Your task to perform on an android device: Open sound settings Image 0: 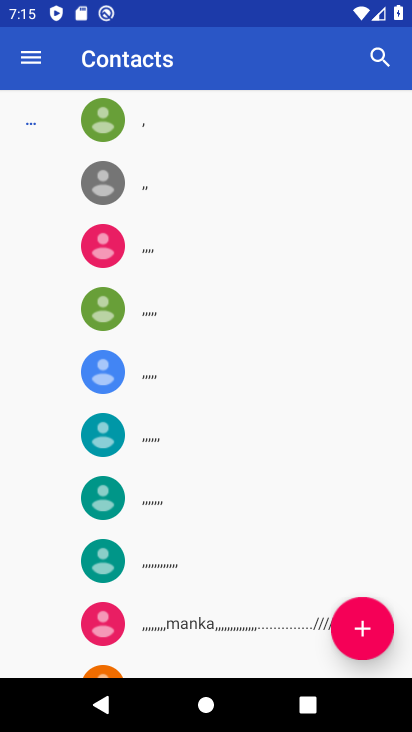
Step 0: press home button
Your task to perform on an android device: Open sound settings Image 1: 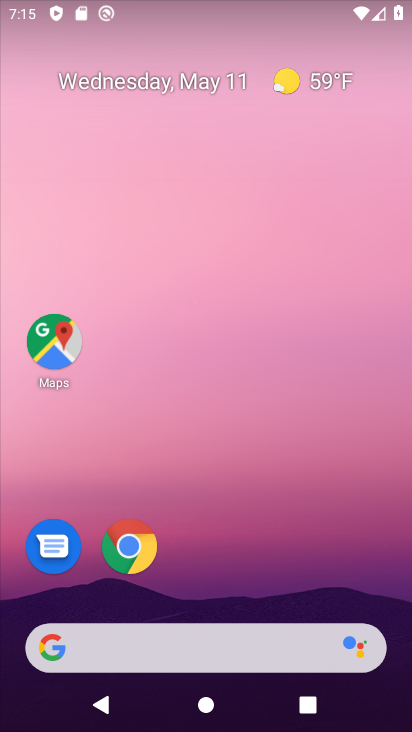
Step 1: drag from (354, 546) to (303, 251)
Your task to perform on an android device: Open sound settings Image 2: 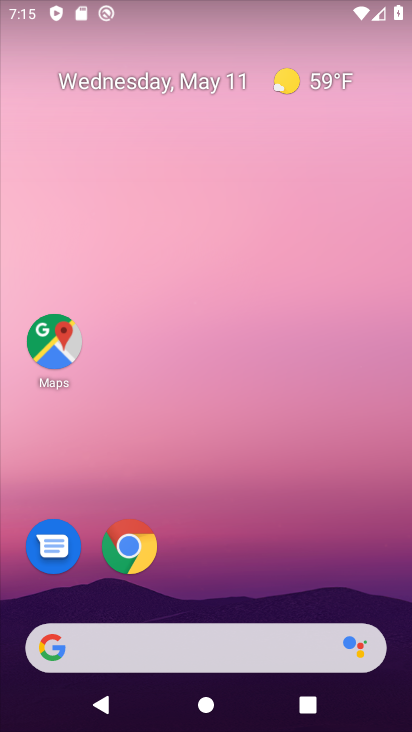
Step 2: drag from (289, 559) to (267, 191)
Your task to perform on an android device: Open sound settings Image 3: 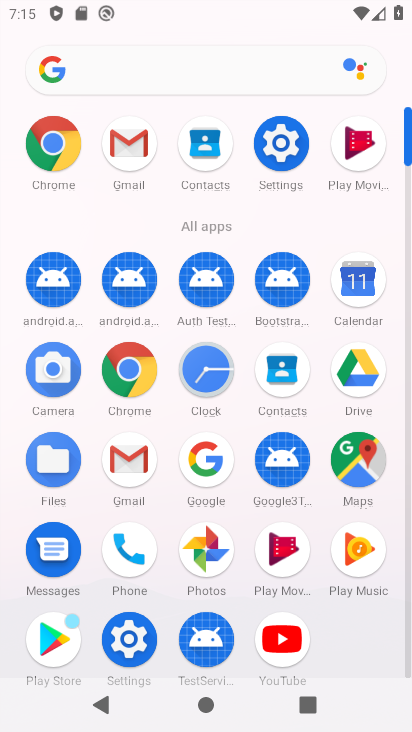
Step 3: click (136, 636)
Your task to perform on an android device: Open sound settings Image 4: 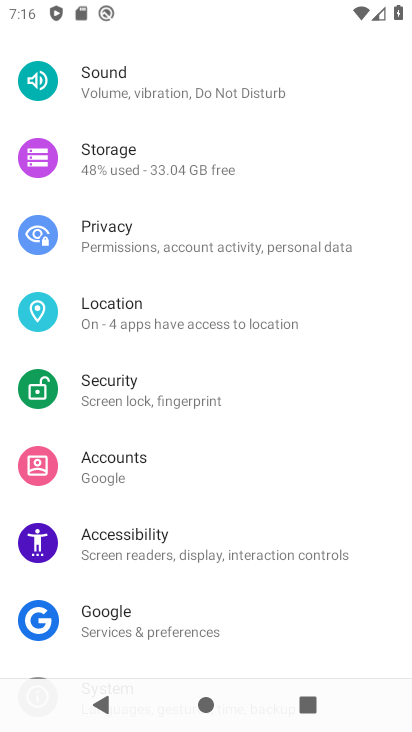
Step 4: click (137, 84)
Your task to perform on an android device: Open sound settings Image 5: 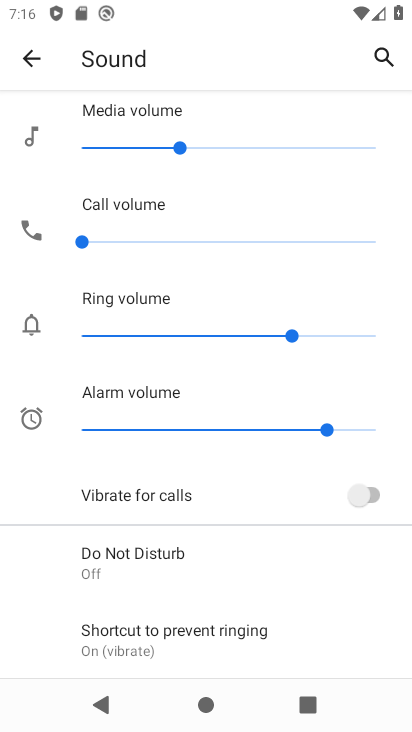
Step 5: task complete